Your task to perform on an android device: Search for a new lawnmower on Lowes.com Image 0: 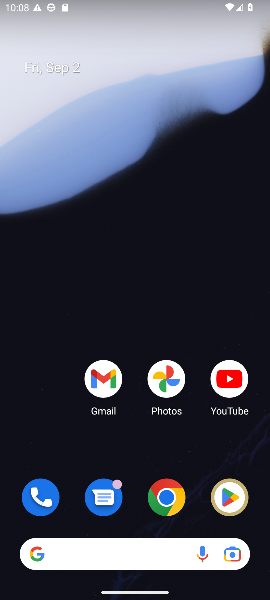
Step 0: click (166, 497)
Your task to perform on an android device: Search for a new lawnmower on Lowes.com Image 1: 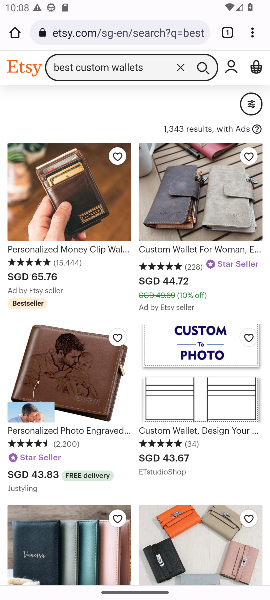
Step 1: click (138, 34)
Your task to perform on an android device: Search for a new lawnmower on Lowes.com Image 2: 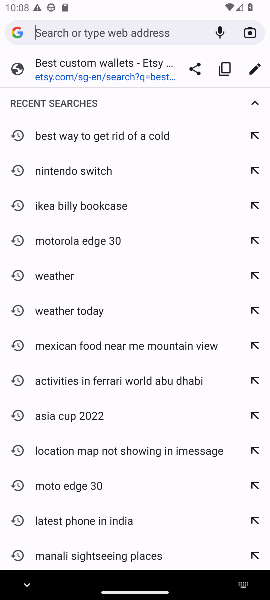
Step 2: type "lowes.com"
Your task to perform on an android device: Search for a new lawnmower on Lowes.com Image 3: 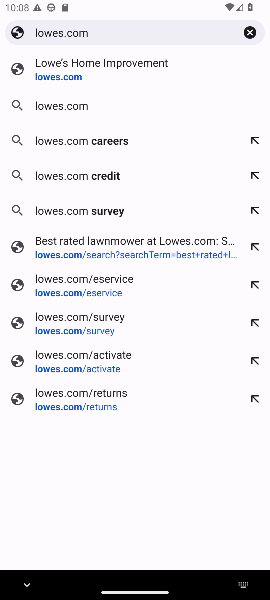
Step 3: click (84, 68)
Your task to perform on an android device: Search for a new lawnmower on Lowes.com Image 4: 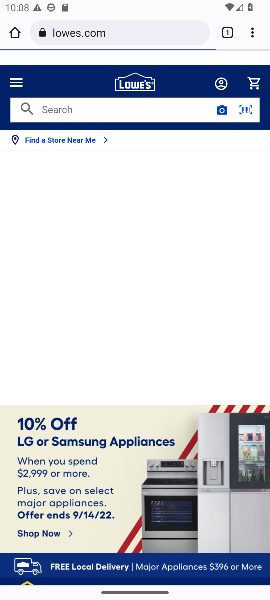
Step 4: click (143, 108)
Your task to perform on an android device: Search for a new lawnmower on Lowes.com Image 5: 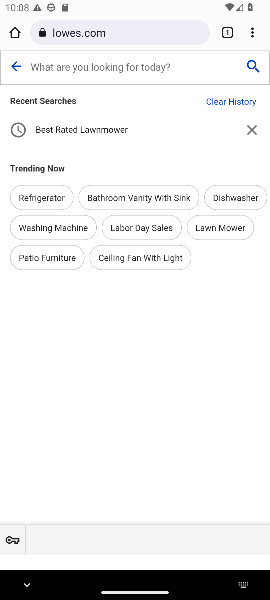
Step 5: type "new lawnmower"
Your task to perform on an android device: Search for a new lawnmower on Lowes.com Image 6: 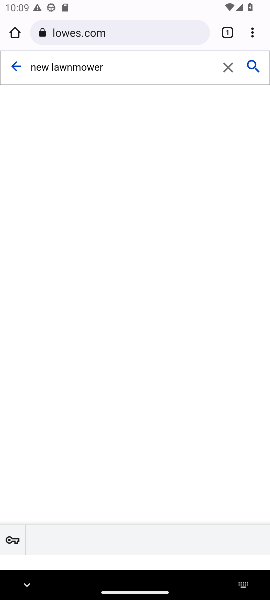
Step 6: press enter
Your task to perform on an android device: Search for a new lawnmower on Lowes.com Image 7: 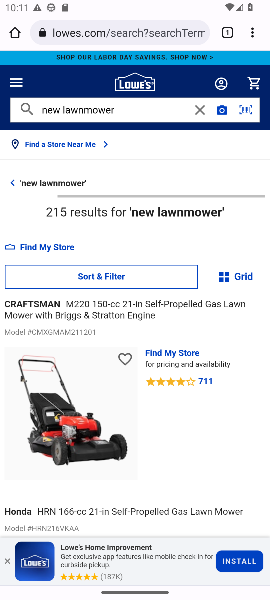
Step 7: task complete